Your task to perform on an android device: Open Google Maps and go to "Timeline" Image 0: 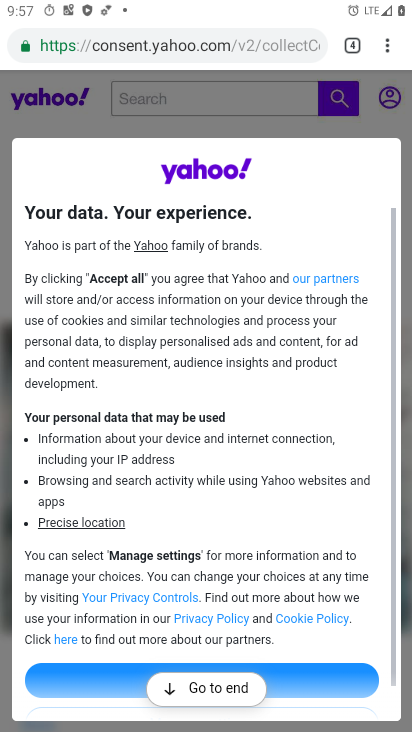
Step 0: press home button
Your task to perform on an android device: Open Google Maps and go to "Timeline" Image 1: 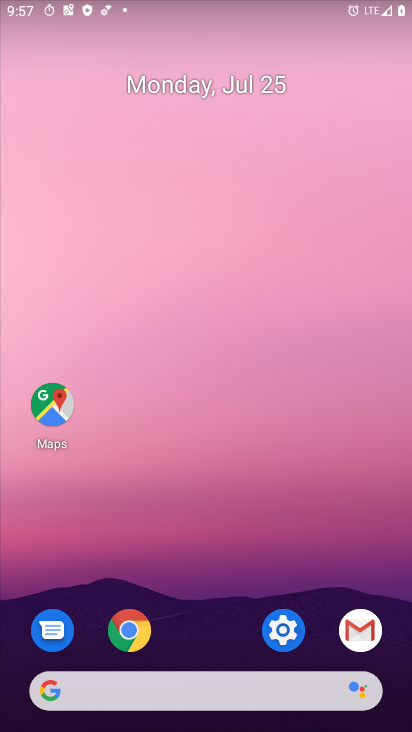
Step 1: click (57, 412)
Your task to perform on an android device: Open Google Maps and go to "Timeline" Image 2: 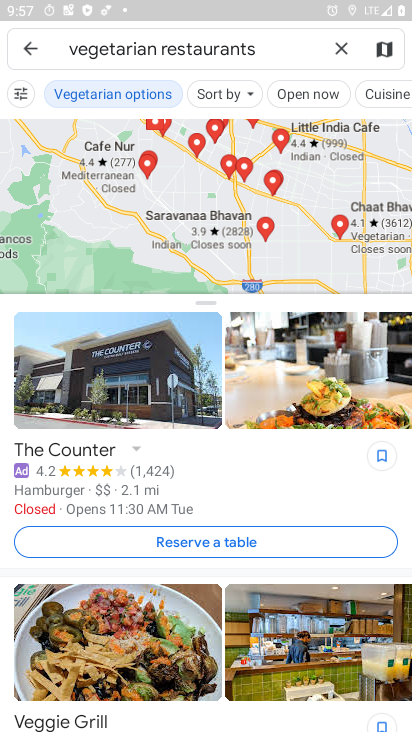
Step 2: click (24, 53)
Your task to perform on an android device: Open Google Maps and go to "Timeline" Image 3: 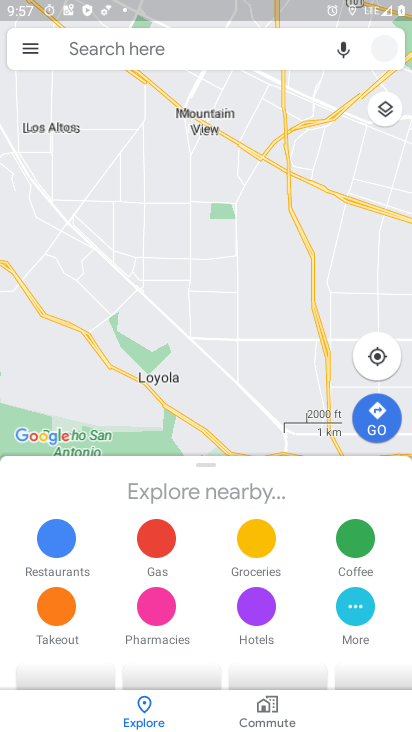
Step 3: click (26, 54)
Your task to perform on an android device: Open Google Maps and go to "Timeline" Image 4: 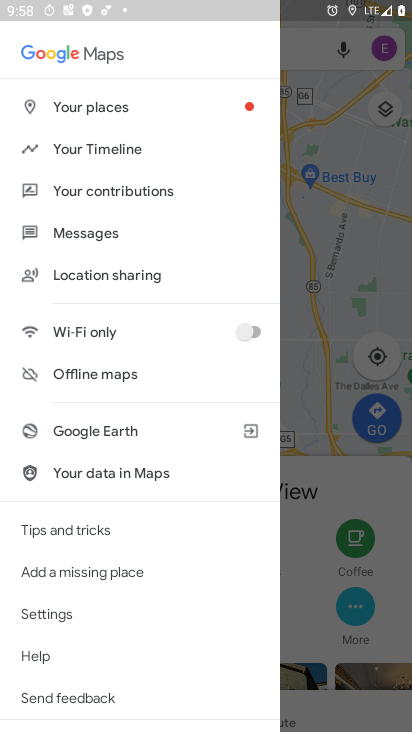
Step 4: click (91, 156)
Your task to perform on an android device: Open Google Maps and go to "Timeline" Image 5: 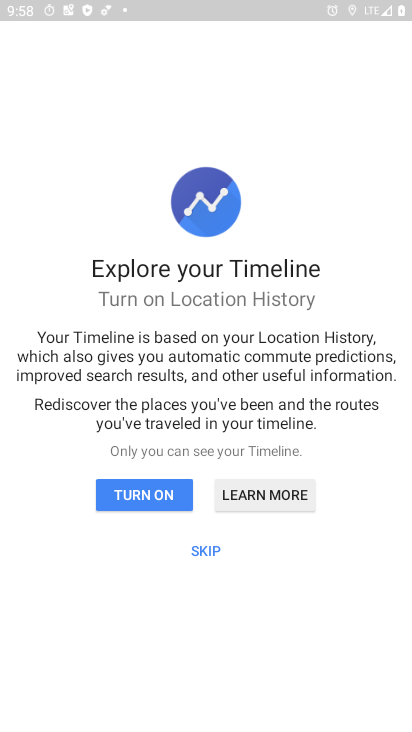
Step 5: click (213, 542)
Your task to perform on an android device: Open Google Maps and go to "Timeline" Image 6: 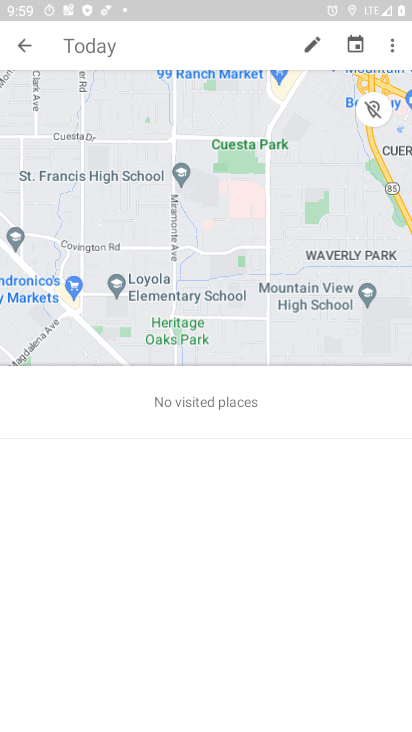
Step 6: task complete